Your task to perform on an android device: Open Wikipedia Image 0: 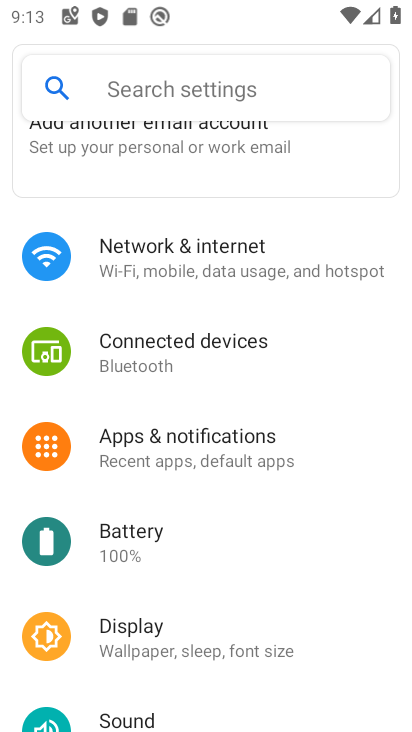
Step 0: press home button
Your task to perform on an android device: Open Wikipedia Image 1: 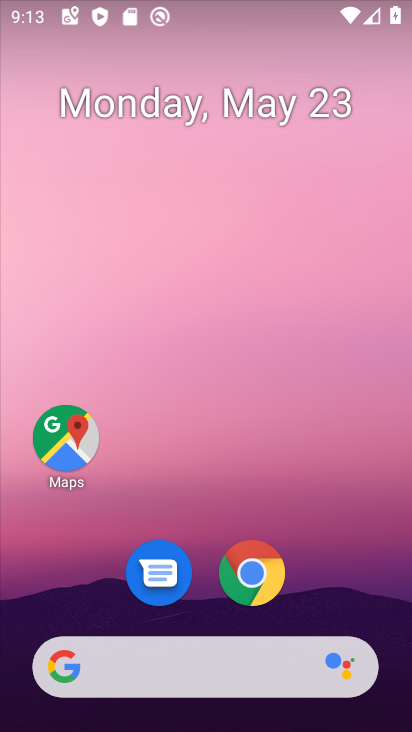
Step 1: drag from (389, 615) to (399, 230)
Your task to perform on an android device: Open Wikipedia Image 2: 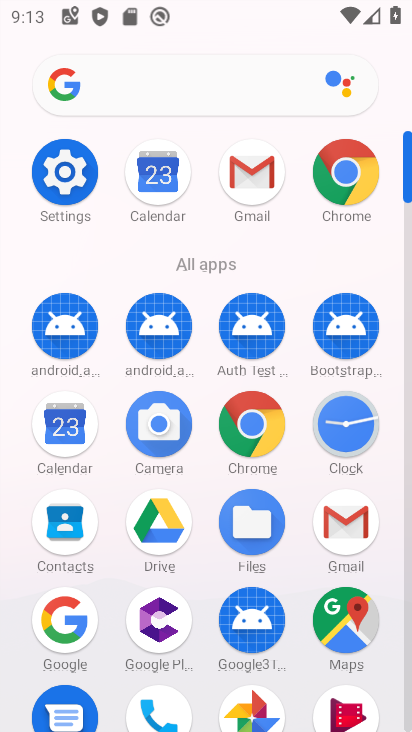
Step 2: click (240, 441)
Your task to perform on an android device: Open Wikipedia Image 3: 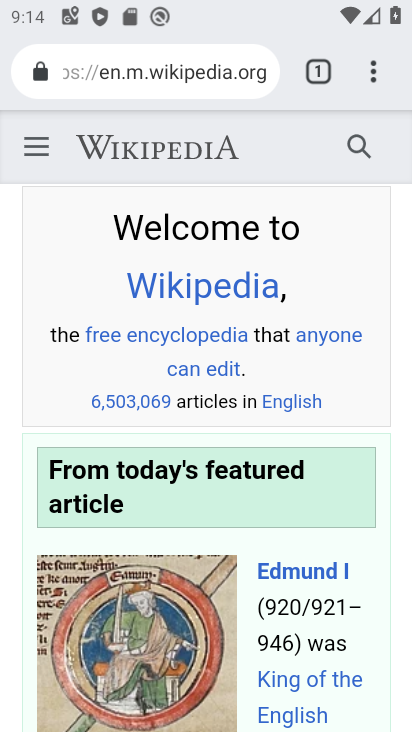
Step 3: task complete